Your task to perform on an android device: add a label to a message in the gmail app Image 0: 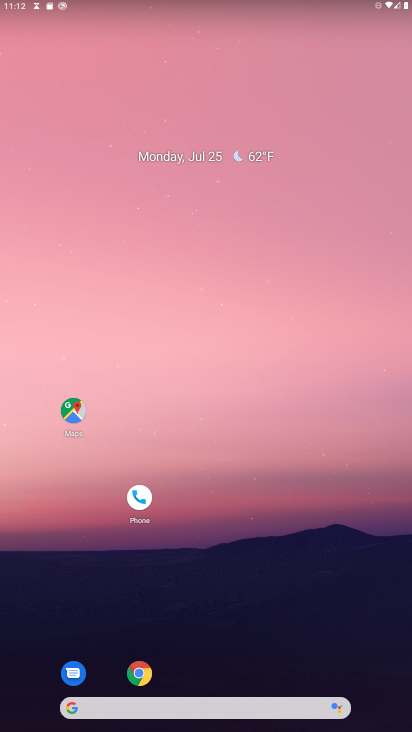
Step 0: press home button
Your task to perform on an android device: add a label to a message in the gmail app Image 1: 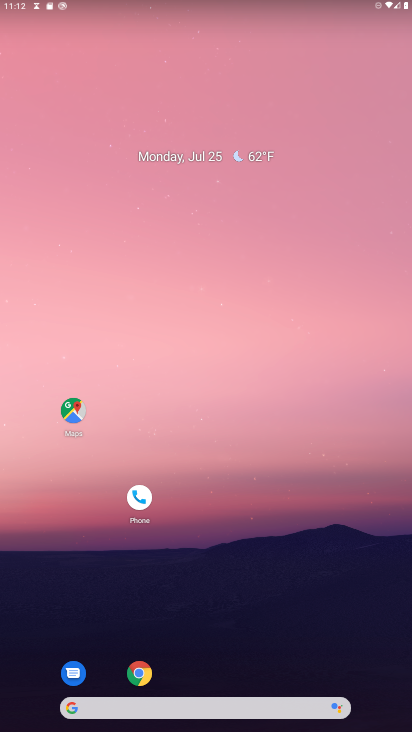
Step 1: press home button
Your task to perform on an android device: add a label to a message in the gmail app Image 2: 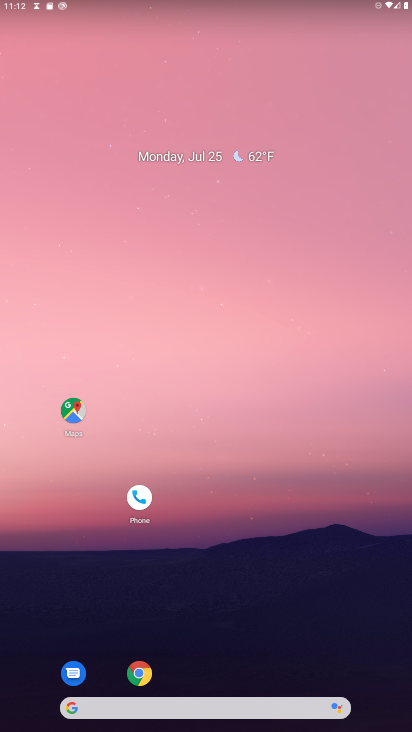
Step 2: drag from (334, 596) to (298, 69)
Your task to perform on an android device: add a label to a message in the gmail app Image 3: 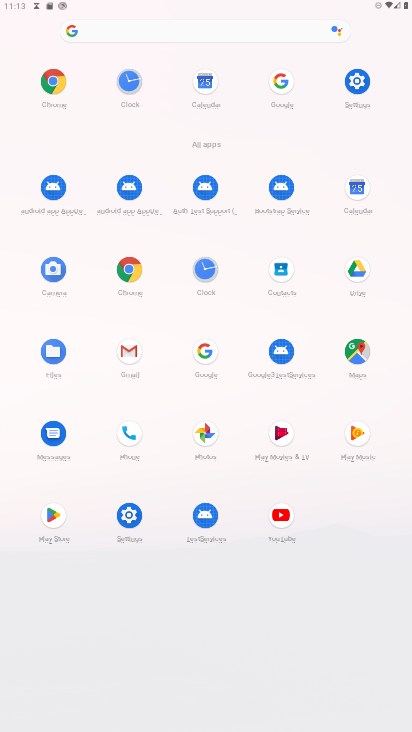
Step 3: click (130, 352)
Your task to perform on an android device: add a label to a message in the gmail app Image 4: 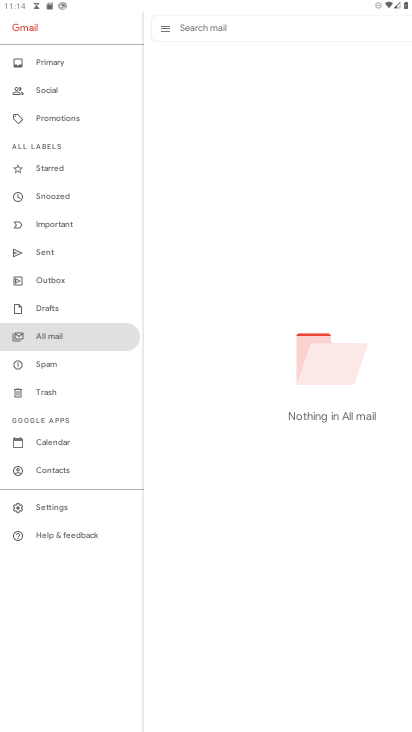
Step 4: task complete